Your task to perform on an android device: turn on improve location accuracy Image 0: 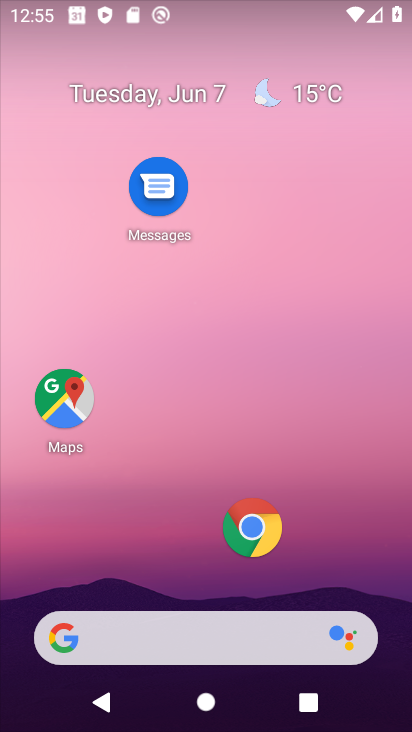
Step 0: drag from (207, 563) to (188, 240)
Your task to perform on an android device: turn on improve location accuracy Image 1: 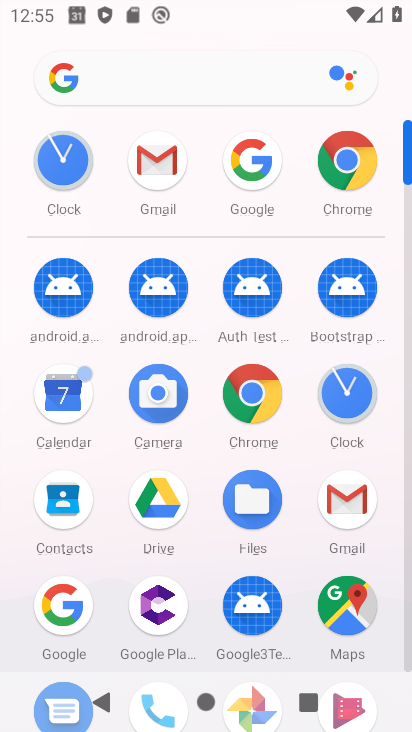
Step 1: drag from (123, 587) to (92, 311)
Your task to perform on an android device: turn on improve location accuracy Image 2: 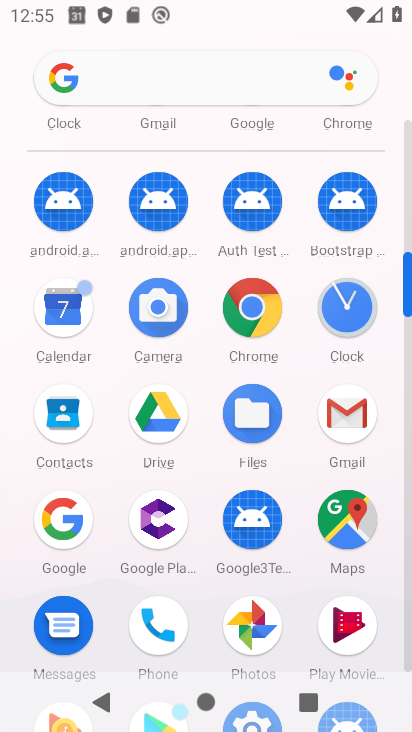
Step 2: drag from (215, 625) to (206, 321)
Your task to perform on an android device: turn on improve location accuracy Image 3: 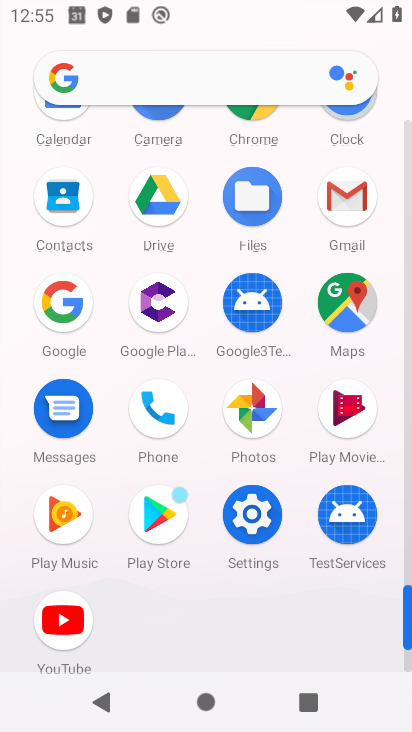
Step 3: click (260, 516)
Your task to perform on an android device: turn on improve location accuracy Image 4: 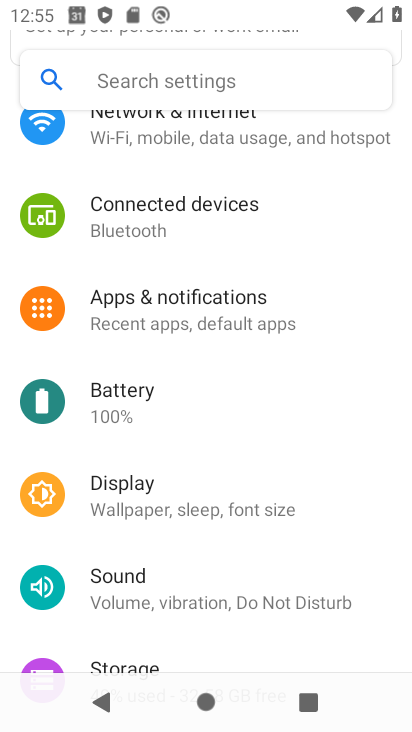
Step 4: drag from (149, 623) to (144, 210)
Your task to perform on an android device: turn on improve location accuracy Image 5: 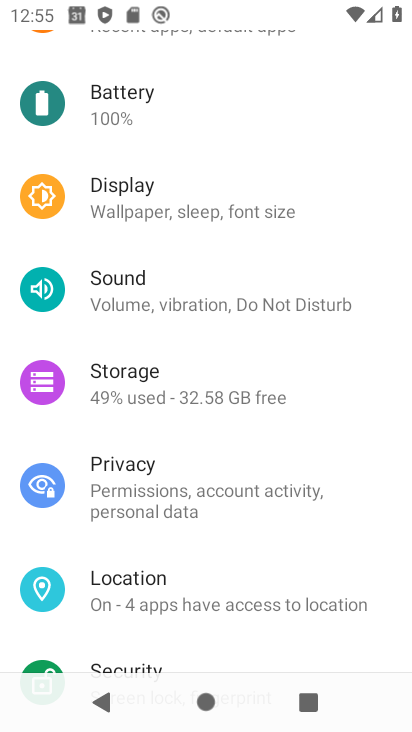
Step 5: click (165, 591)
Your task to perform on an android device: turn on improve location accuracy Image 6: 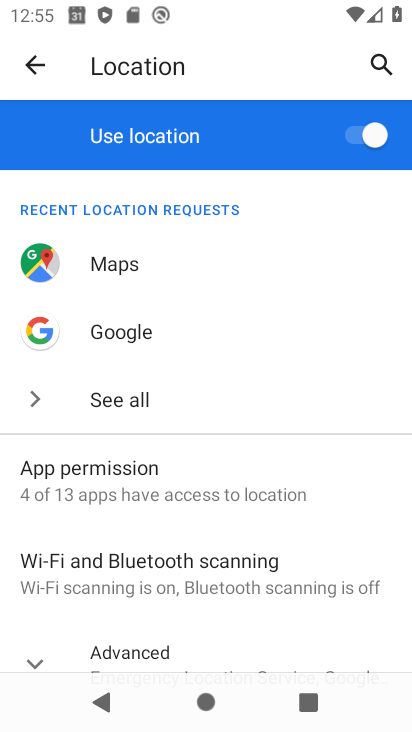
Step 6: drag from (171, 639) to (166, 360)
Your task to perform on an android device: turn on improve location accuracy Image 7: 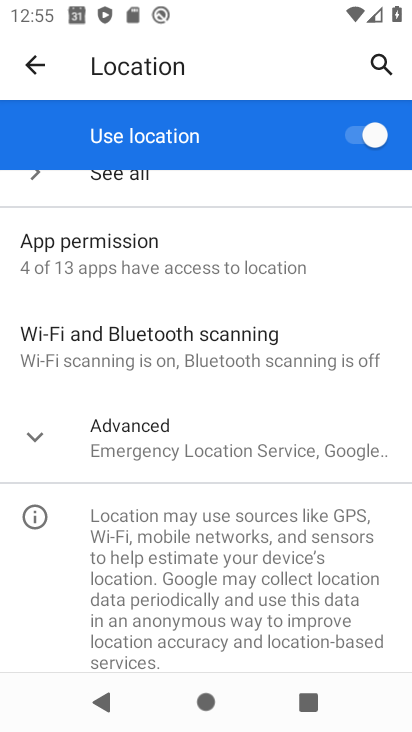
Step 7: click (185, 443)
Your task to perform on an android device: turn on improve location accuracy Image 8: 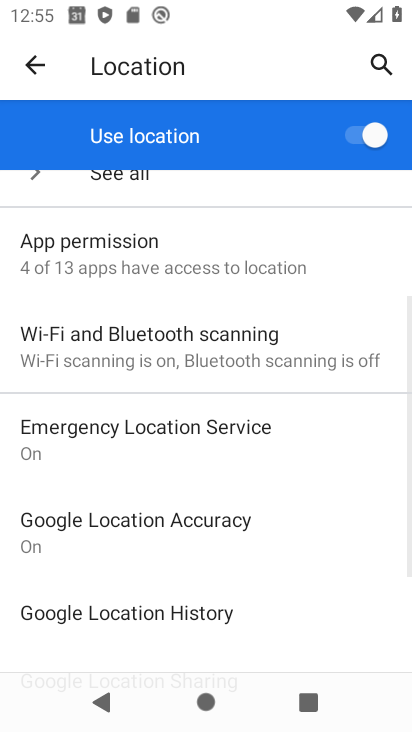
Step 8: click (180, 509)
Your task to perform on an android device: turn on improve location accuracy Image 9: 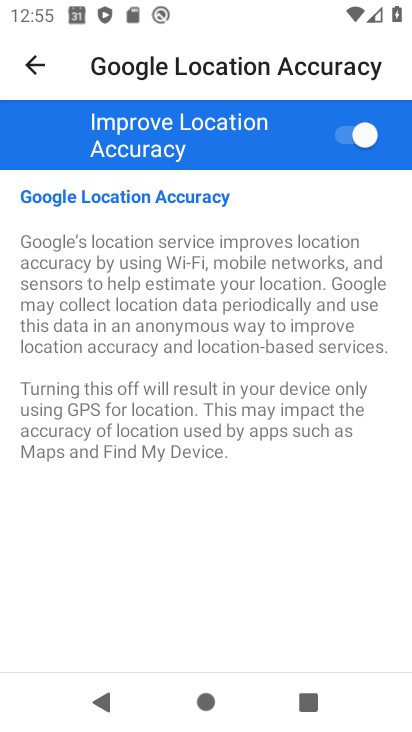
Step 9: task complete